Your task to perform on an android device: Go to network settings Image 0: 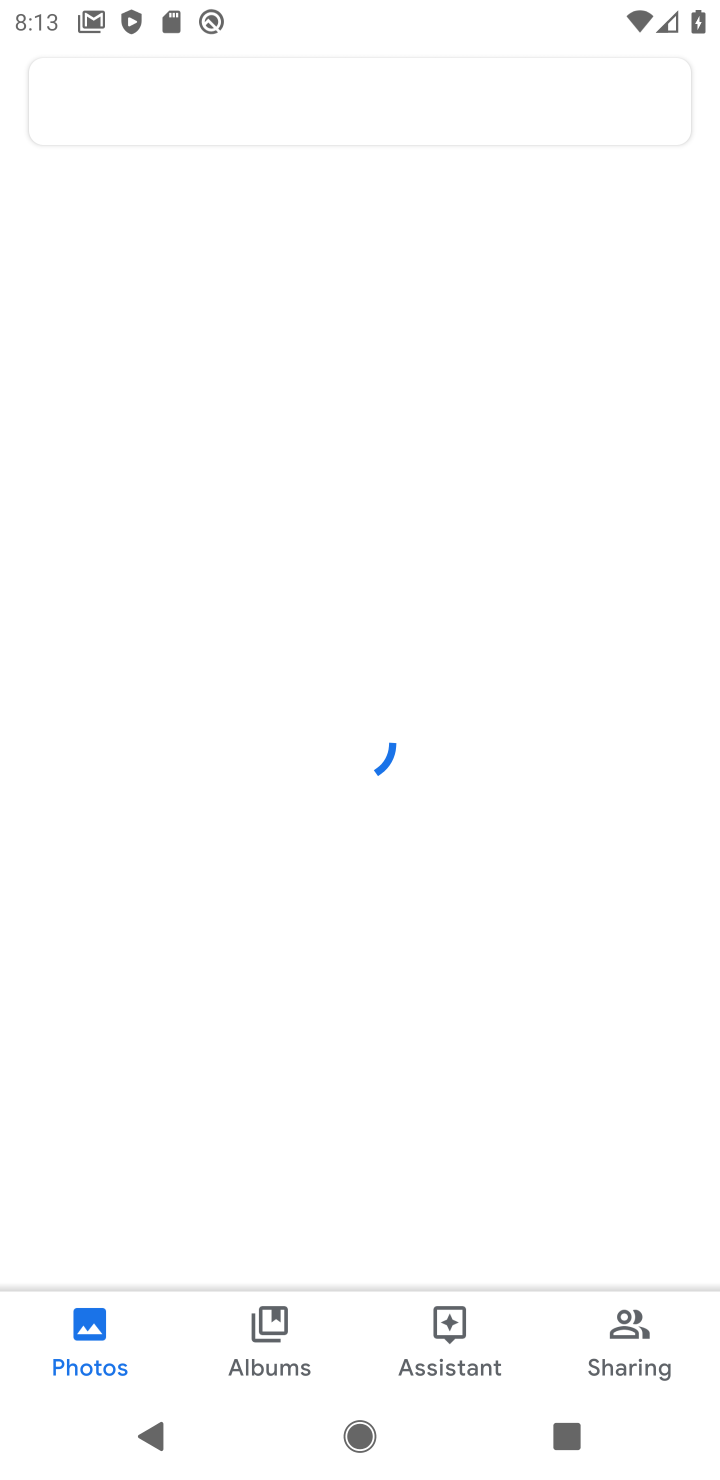
Step 0: press home button
Your task to perform on an android device: Go to network settings Image 1: 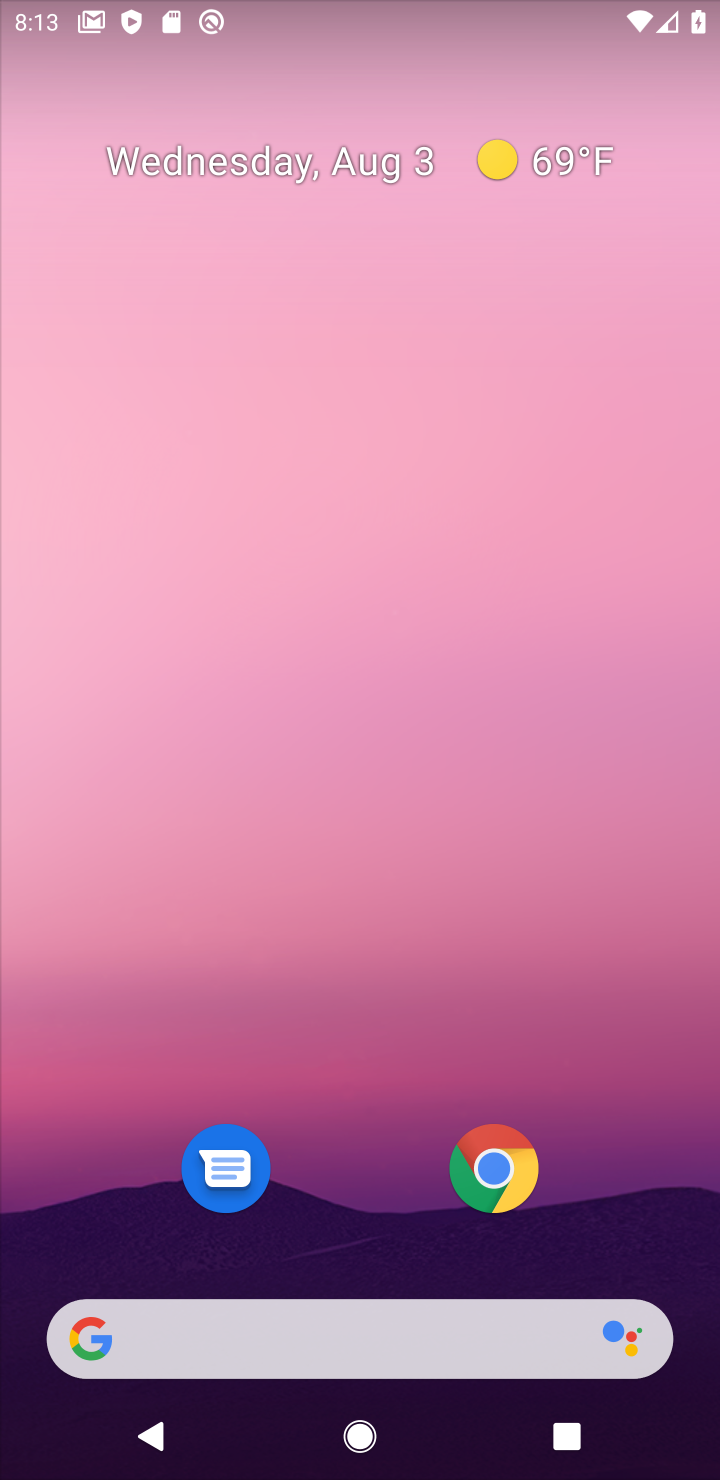
Step 1: drag from (476, 1259) to (669, 846)
Your task to perform on an android device: Go to network settings Image 2: 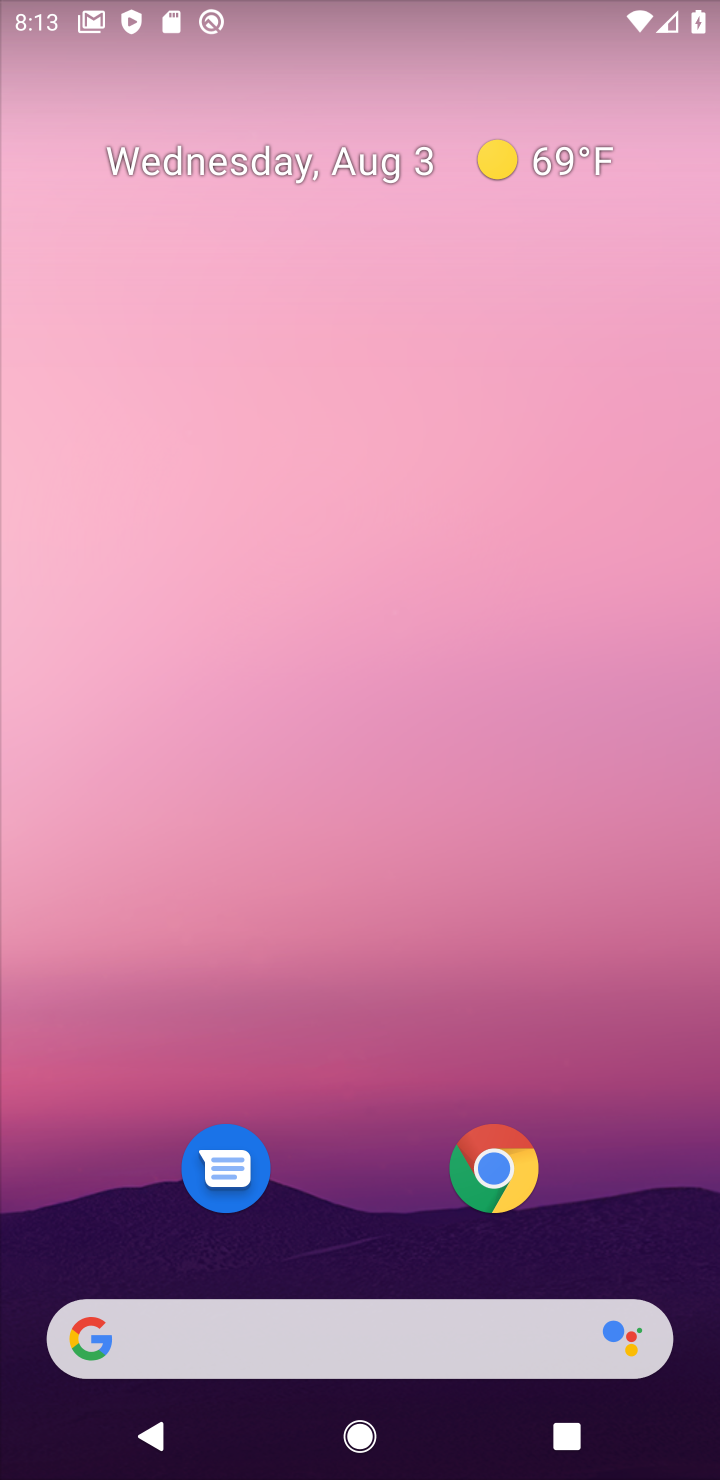
Step 2: drag from (385, 1238) to (311, 110)
Your task to perform on an android device: Go to network settings Image 3: 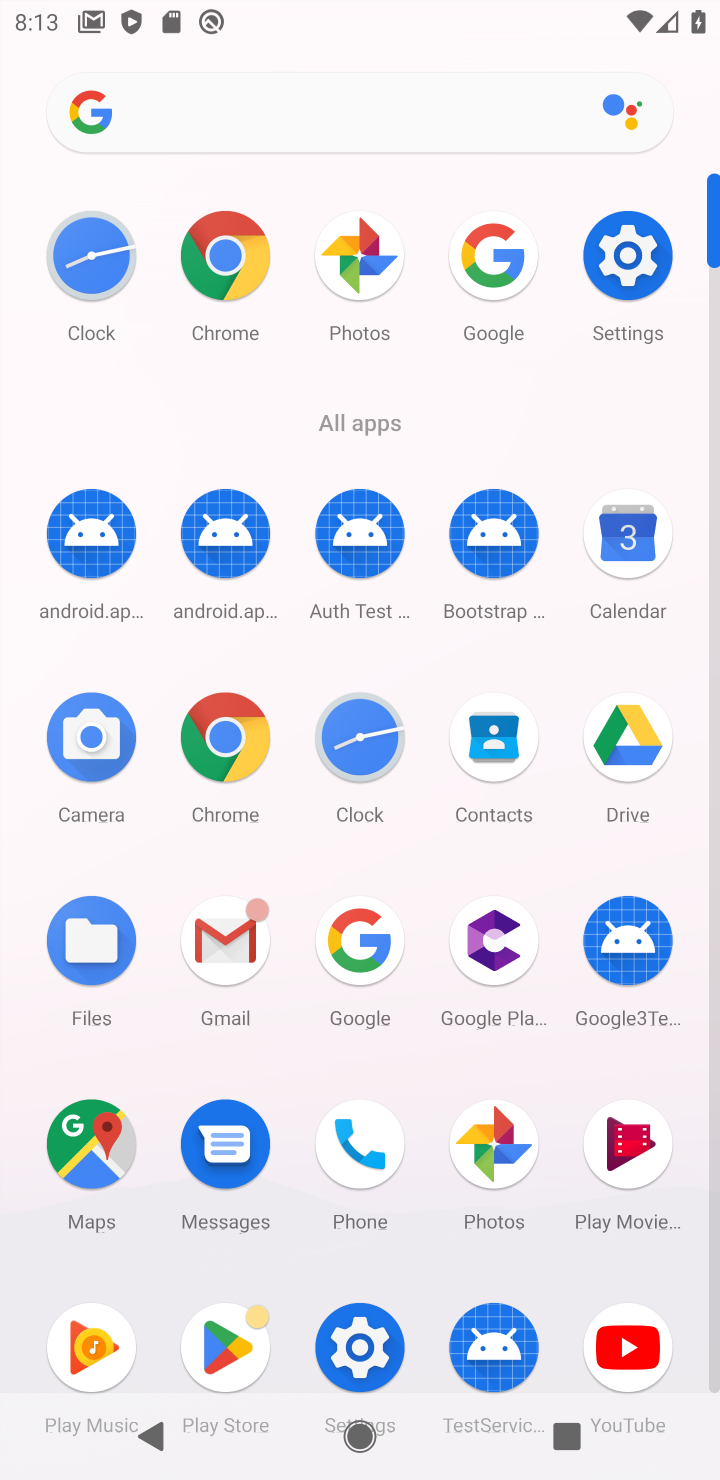
Step 3: click (597, 246)
Your task to perform on an android device: Go to network settings Image 4: 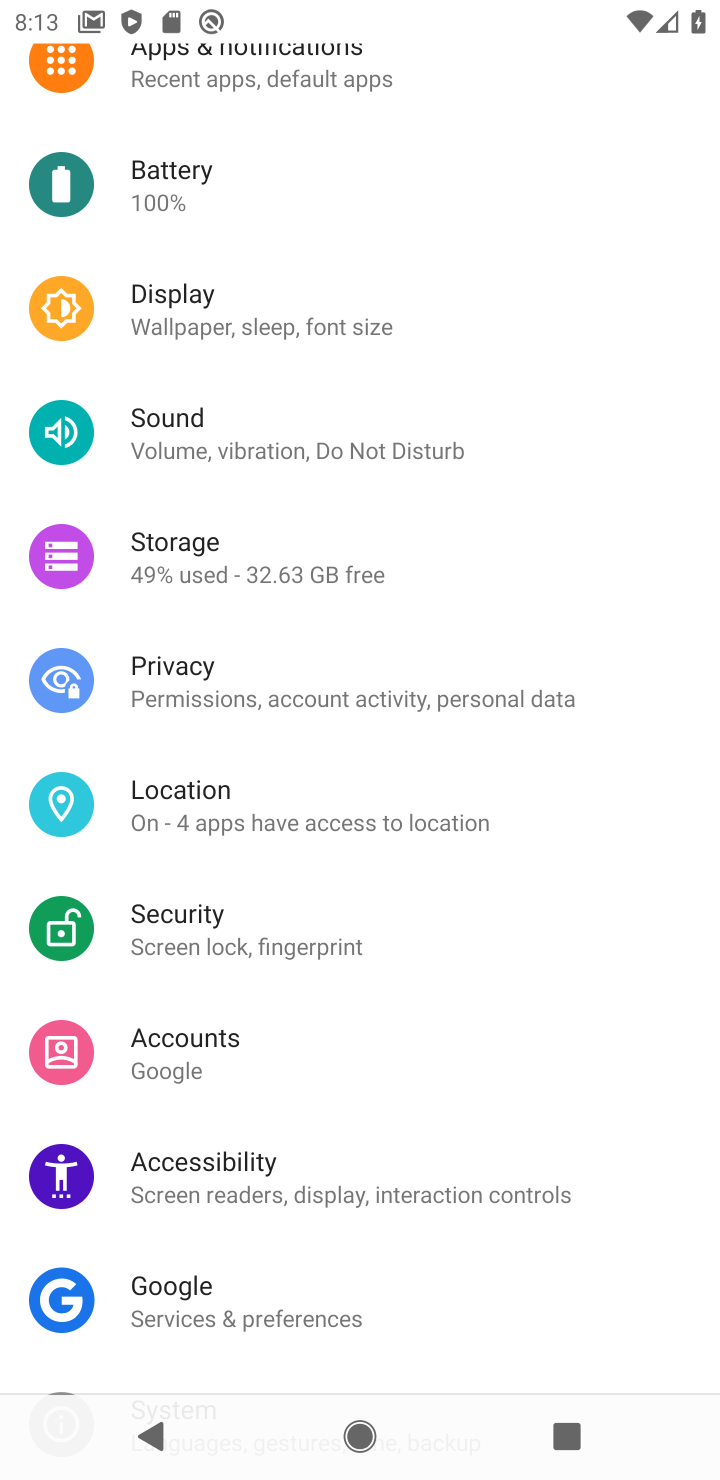
Step 4: drag from (523, 306) to (484, 1018)
Your task to perform on an android device: Go to network settings Image 5: 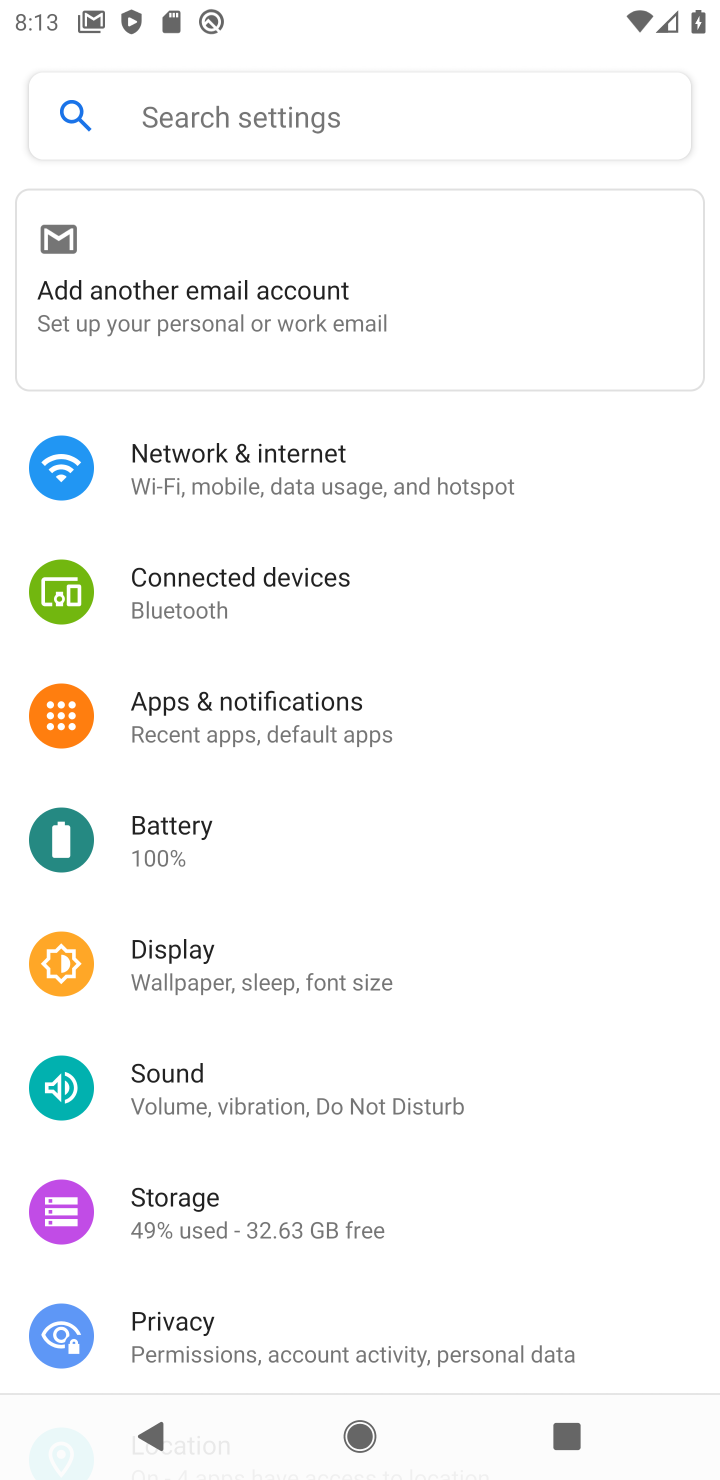
Step 5: click (213, 387)
Your task to perform on an android device: Go to network settings Image 6: 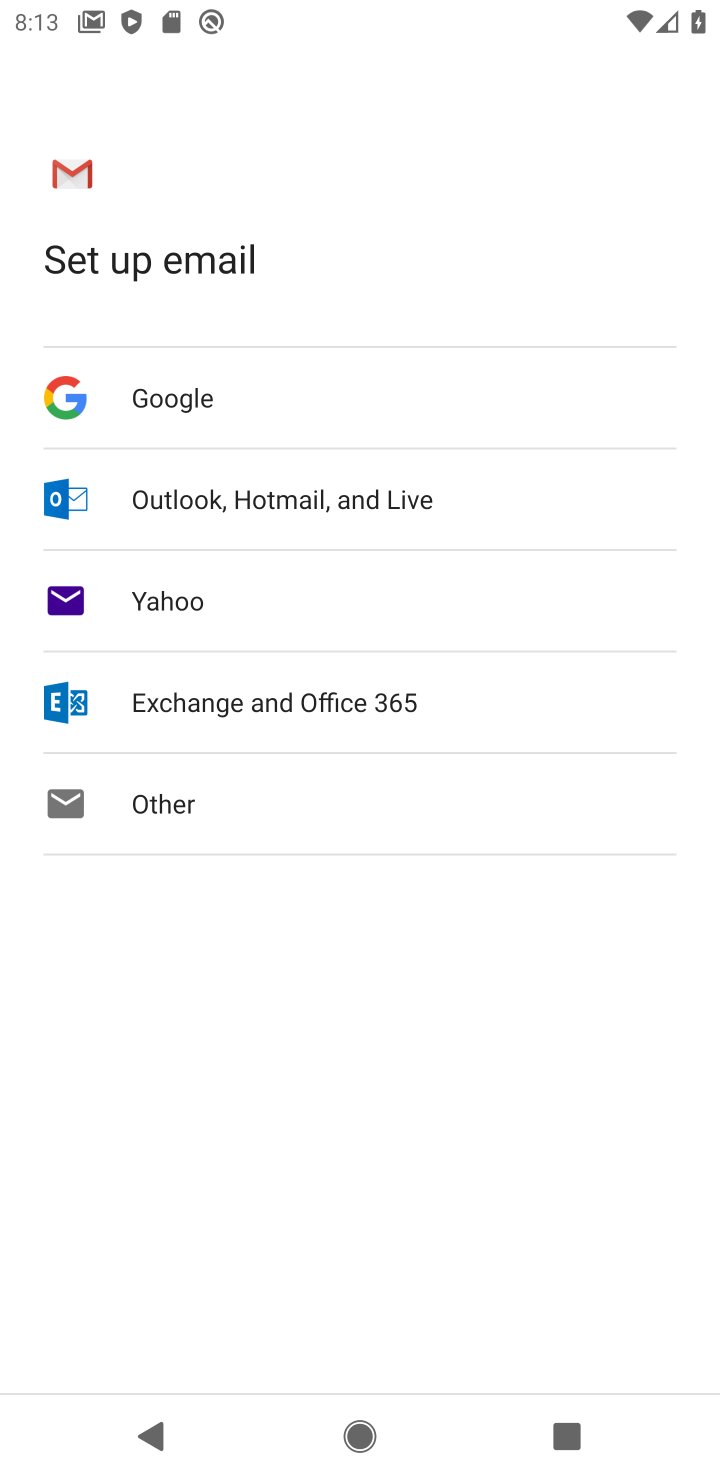
Step 6: press back button
Your task to perform on an android device: Go to network settings Image 7: 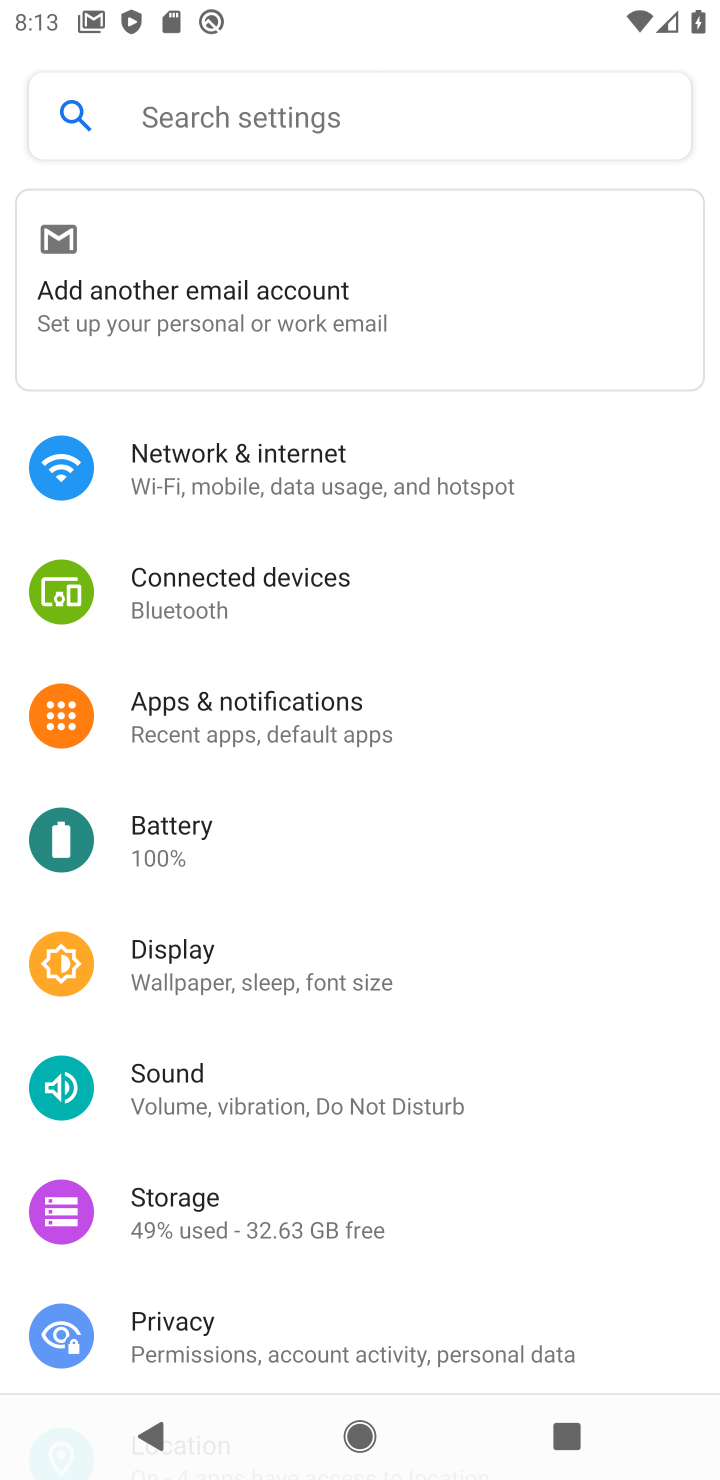
Step 7: click (266, 460)
Your task to perform on an android device: Go to network settings Image 8: 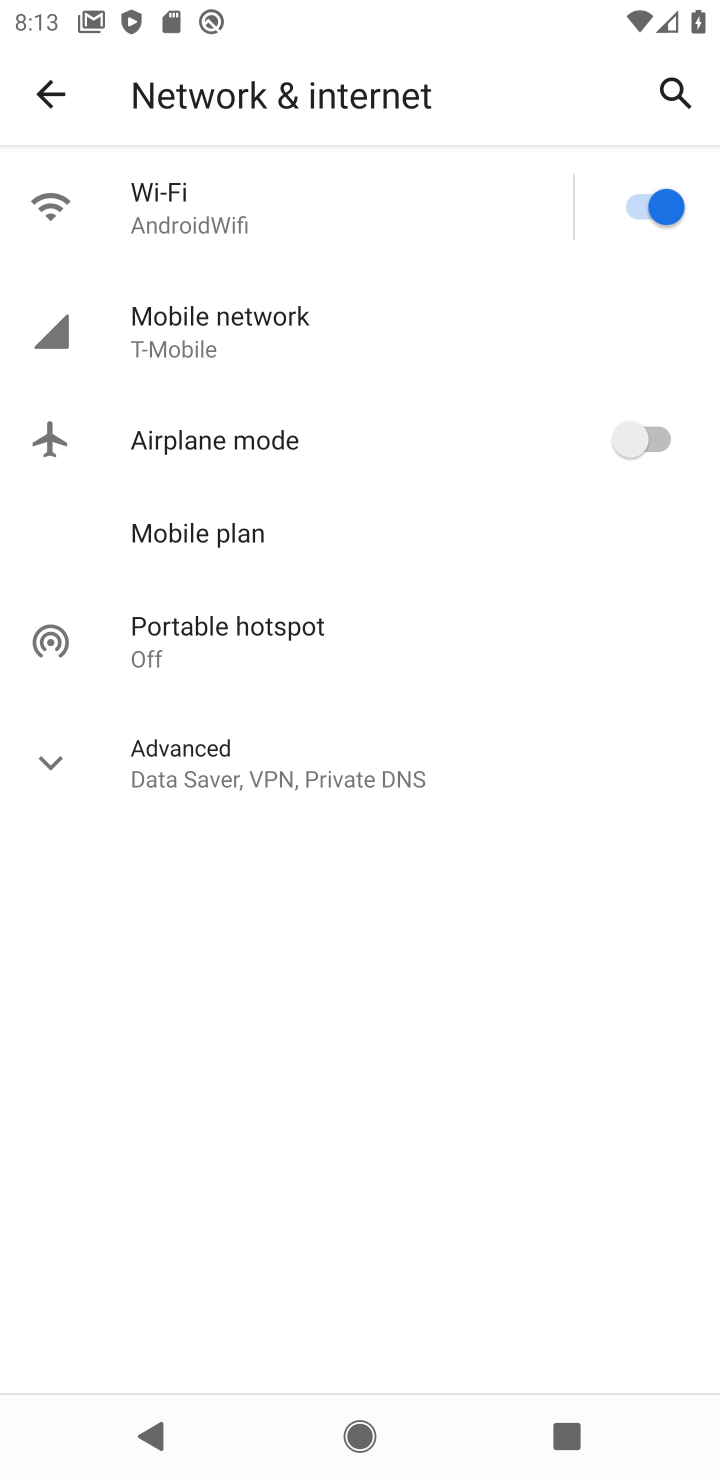
Step 8: task complete